Your task to perform on an android device: turn off airplane mode Image 0: 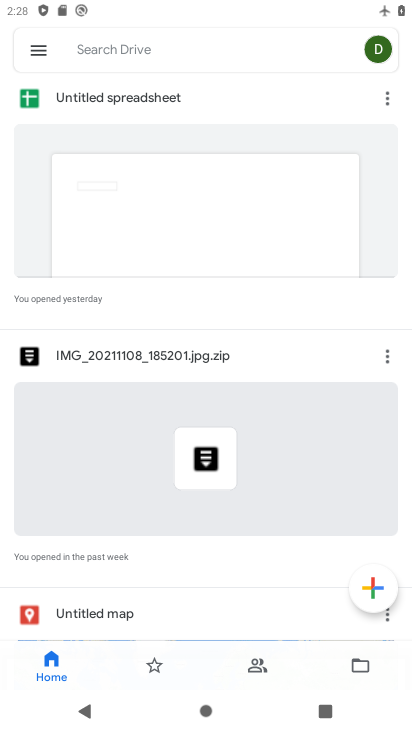
Step 0: press home button
Your task to perform on an android device: turn off airplane mode Image 1: 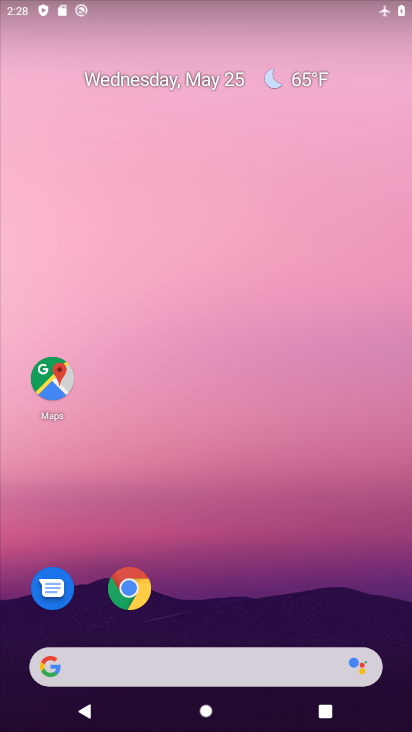
Step 1: drag from (171, 538) to (231, 132)
Your task to perform on an android device: turn off airplane mode Image 2: 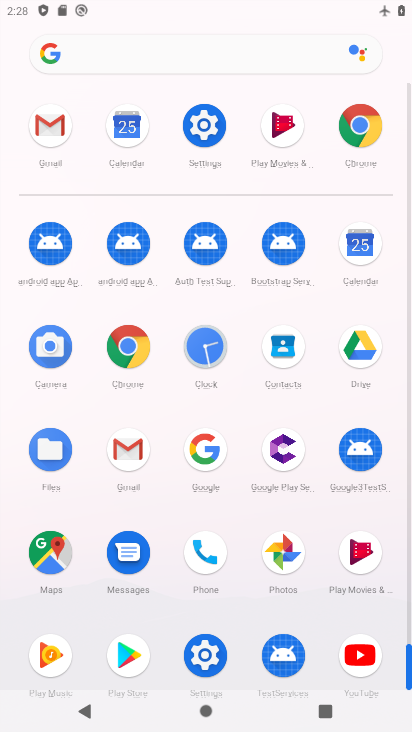
Step 2: click (203, 130)
Your task to perform on an android device: turn off airplane mode Image 3: 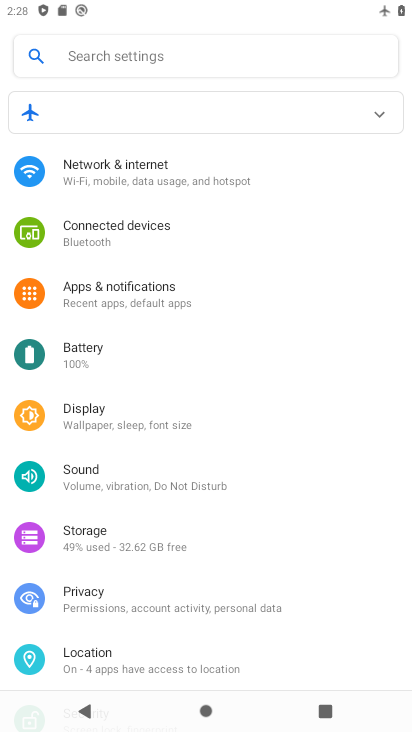
Step 3: click (155, 186)
Your task to perform on an android device: turn off airplane mode Image 4: 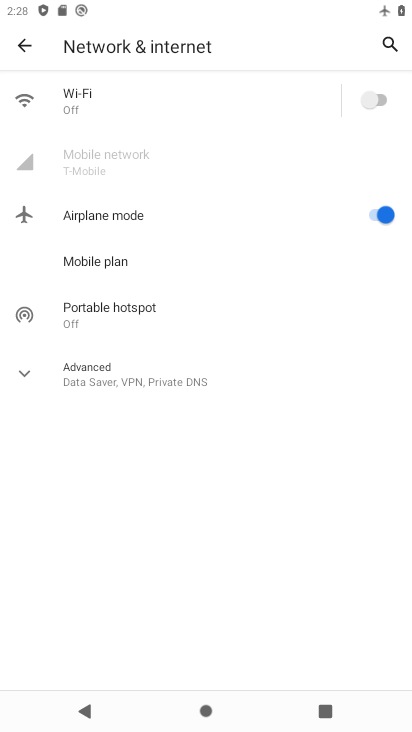
Step 4: click (372, 214)
Your task to perform on an android device: turn off airplane mode Image 5: 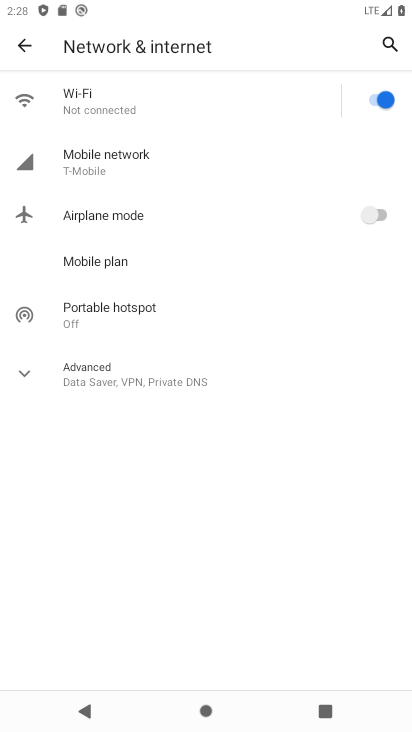
Step 5: task complete